Your task to perform on an android device: Go to sound settings Image 0: 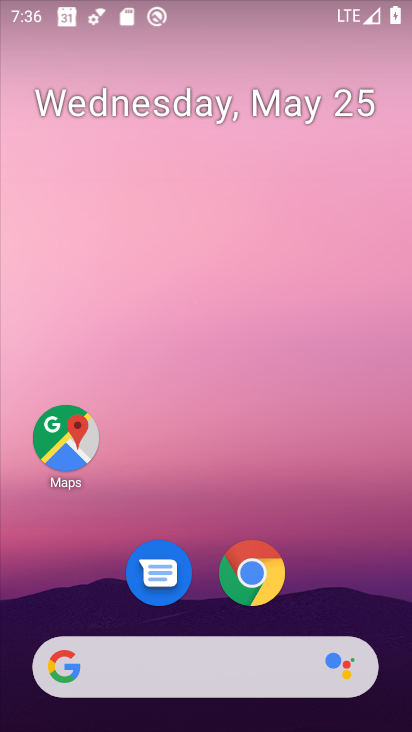
Step 0: drag from (399, 716) to (300, 231)
Your task to perform on an android device: Go to sound settings Image 1: 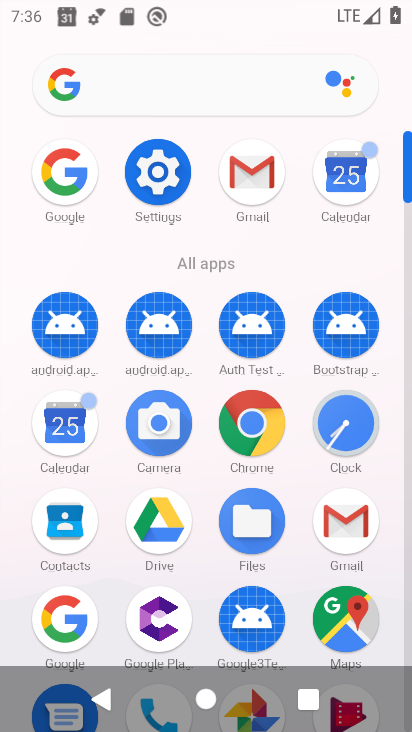
Step 1: click (170, 189)
Your task to perform on an android device: Go to sound settings Image 2: 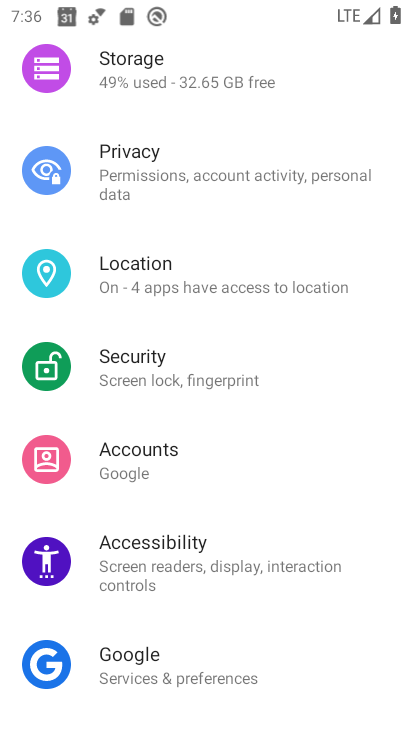
Step 2: drag from (261, 107) to (318, 560)
Your task to perform on an android device: Go to sound settings Image 3: 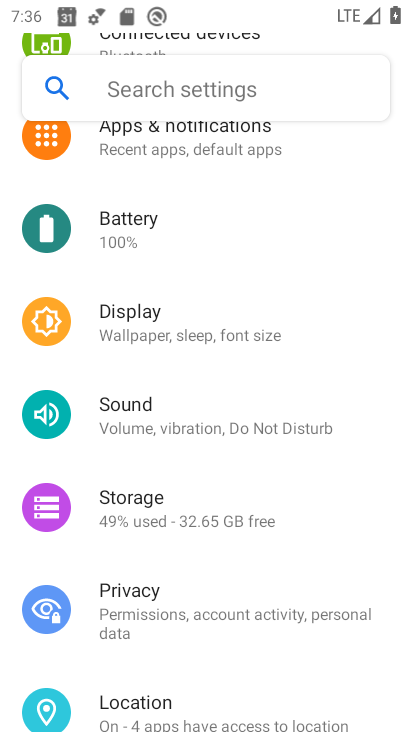
Step 3: click (123, 396)
Your task to perform on an android device: Go to sound settings Image 4: 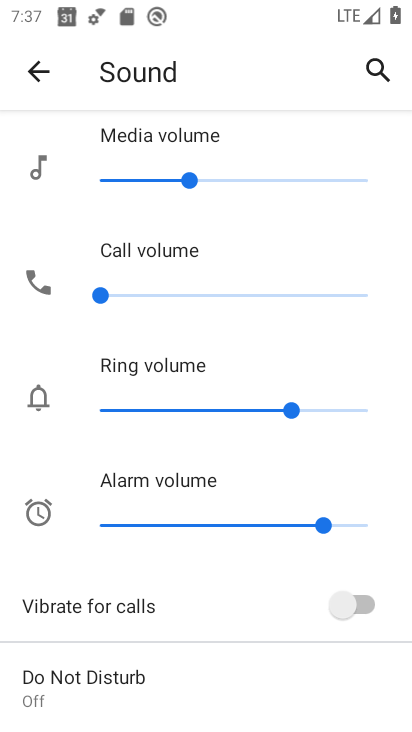
Step 4: task complete